Your task to perform on an android device: open a bookmark in the chrome app Image 0: 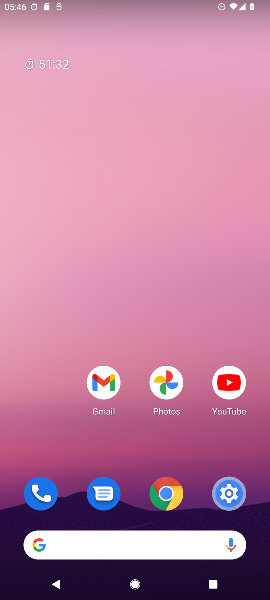
Step 0: press home button
Your task to perform on an android device: open a bookmark in the chrome app Image 1: 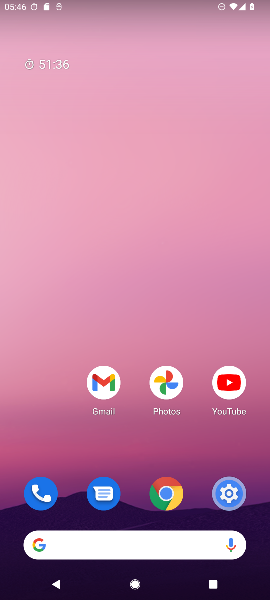
Step 1: drag from (58, 459) to (47, 195)
Your task to perform on an android device: open a bookmark in the chrome app Image 2: 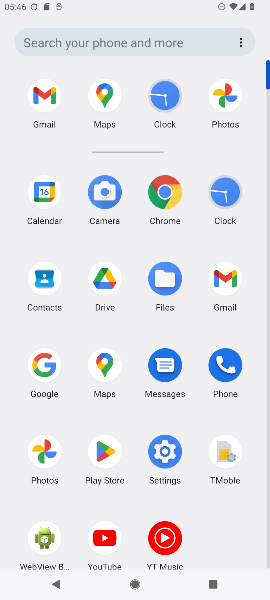
Step 2: click (165, 188)
Your task to perform on an android device: open a bookmark in the chrome app Image 3: 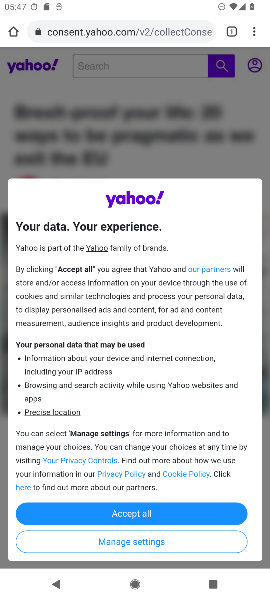
Step 3: click (256, 33)
Your task to perform on an android device: open a bookmark in the chrome app Image 4: 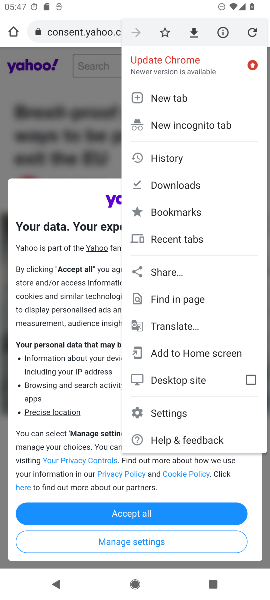
Step 4: drag from (226, 302) to (241, 186)
Your task to perform on an android device: open a bookmark in the chrome app Image 5: 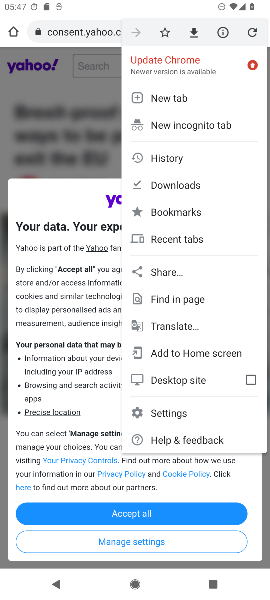
Step 5: click (212, 212)
Your task to perform on an android device: open a bookmark in the chrome app Image 6: 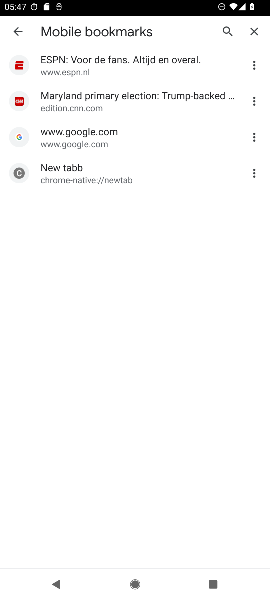
Step 6: task complete